Your task to perform on an android device: find which apps use the phone's location Image 0: 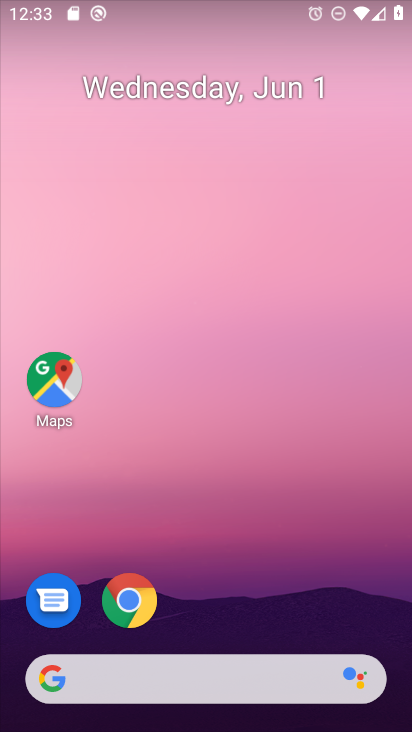
Step 0: drag from (239, 557) to (269, 156)
Your task to perform on an android device: find which apps use the phone's location Image 1: 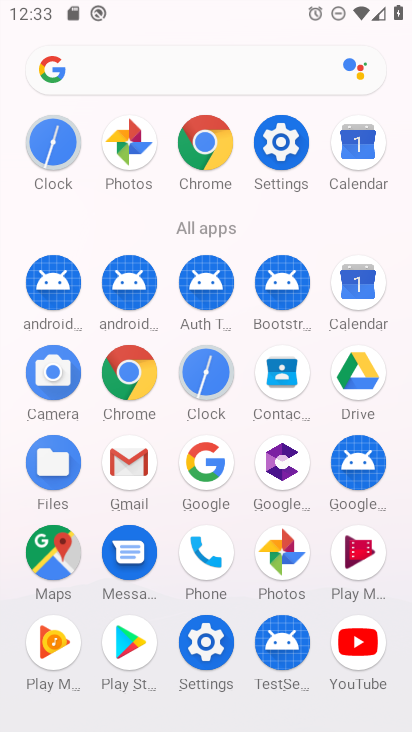
Step 1: click (208, 624)
Your task to perform on an android device: find which apps use the phone's location Image 2: 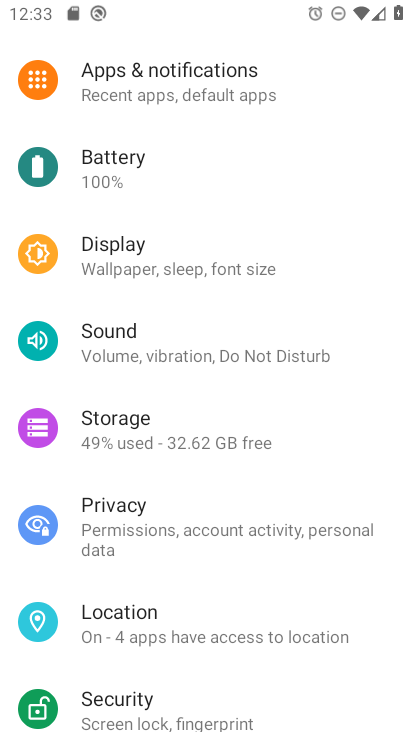
Step 2: click (166, 613)
Your task to perform on an android device: find which apps use the phone's location Image 3: 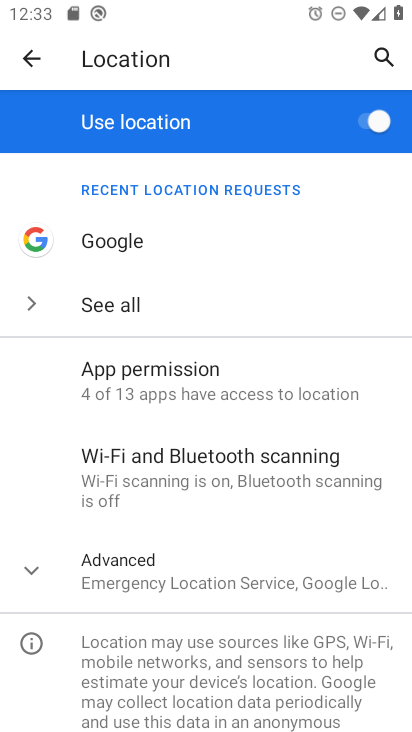
Step 3: click (150, 375)
Your task to perform on an android device: find which apps use the phone's location Image 4: 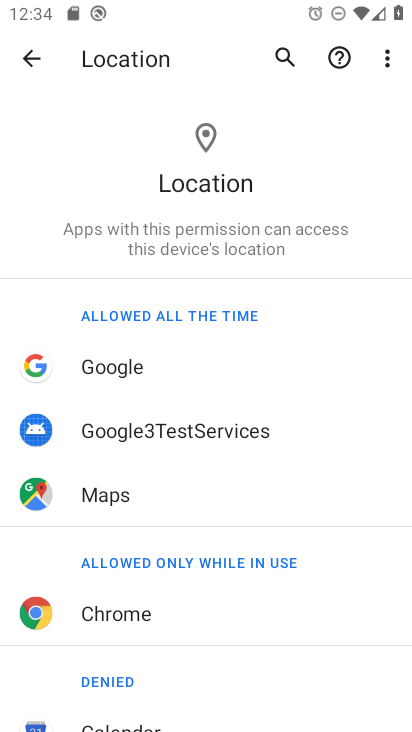
Step 4: task complete